Your task to perform on an android device: change the clock display to digital Image 0: 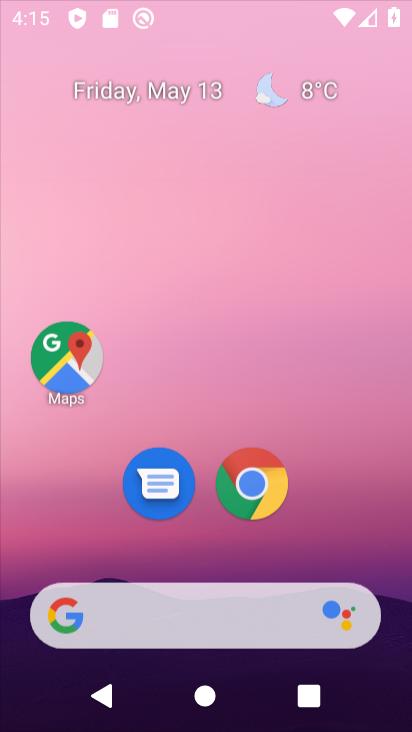
Step 0: drag from (277, 219) to (231, 8)
Your task to perform on an android device: change the clock display to digital Image 1: 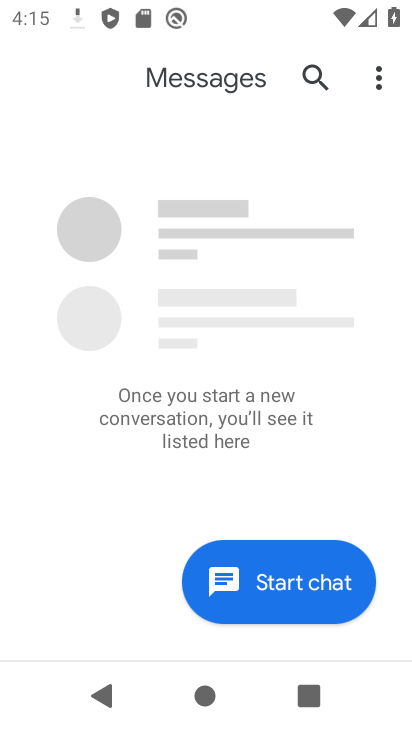
Step 1: press home button
Your task to perform on an android device: change the clock display to digital Image 2: 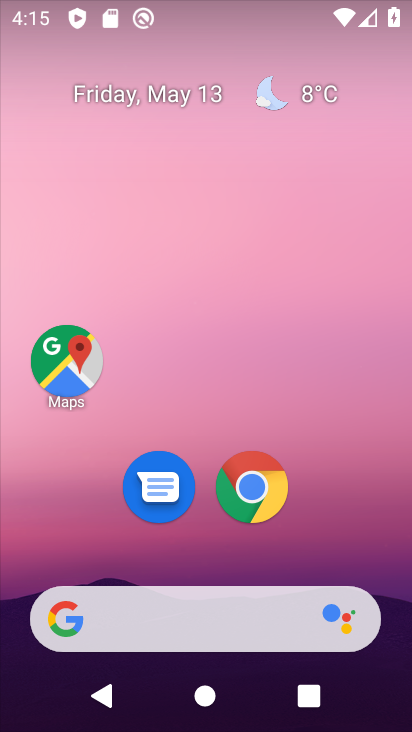
Step 2: drag from (358, 559) to (355, 8)
Your task to perform on an android device: change the clock display to digital Image 3: 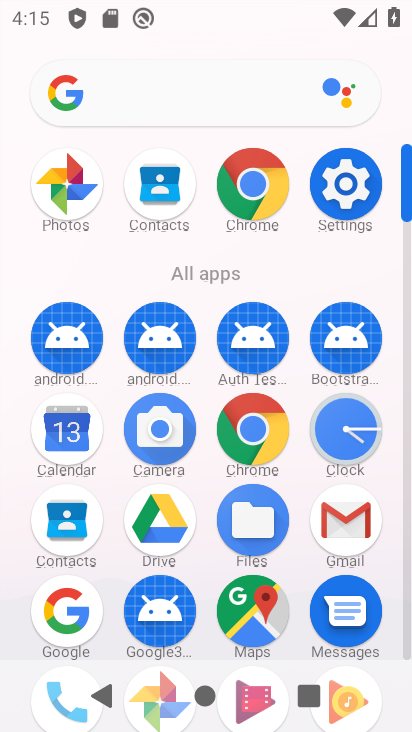
Step 3: click (330, 426)
Your task to perform on an android device: change the clock display to digital Image 4: 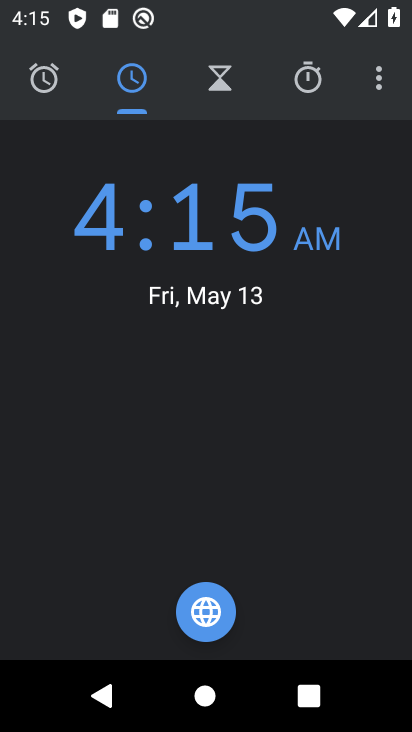
Step 4: click (381, 112)
Your task to perform on an android device: change the clock display to digital Image 5: 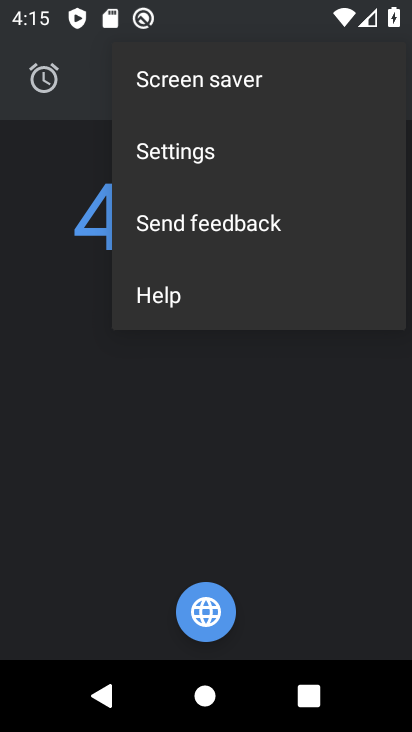
Step 5: click (231, 174)
Your task to perform on an android device: change the clock display to digital Image 6: 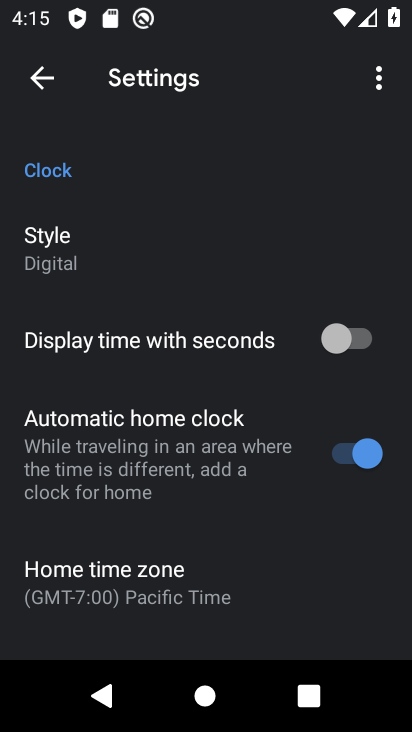
Step 6: task complete